Your task to perform on an android device: Show me popular games on the Play Store Image 0: 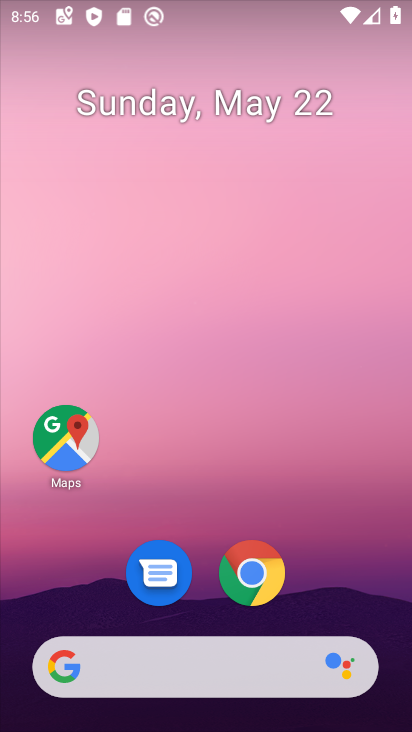
Step 0: drag from (216, 568) to (231, 24)
Your task to perform on an android device: Show me popular games on the Play Store Image 1: 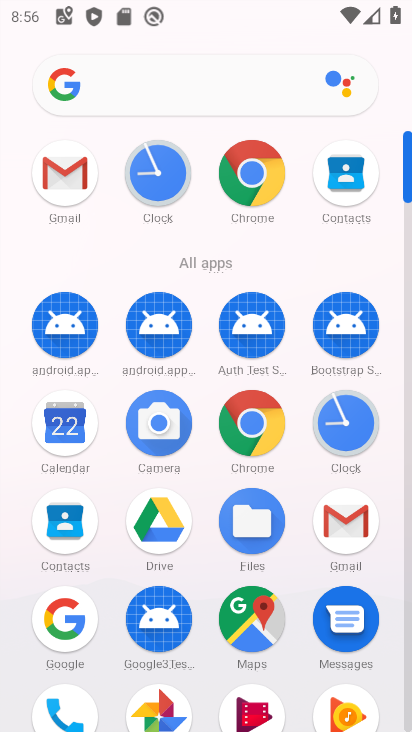
Step 1: drag from (305, 587) to (313, 167)
Your task to perform on an android device: Show me popular games on the Play Store Image 2: 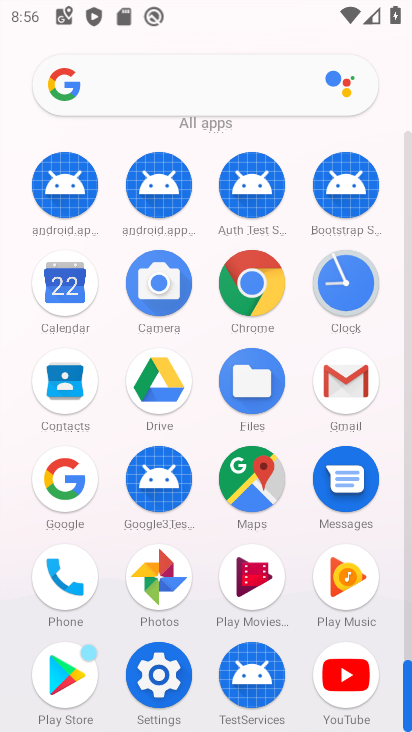
Step 2: click (53, 679)
Your task to perform on an android device: Show me popular games on the Play Store Image 3: 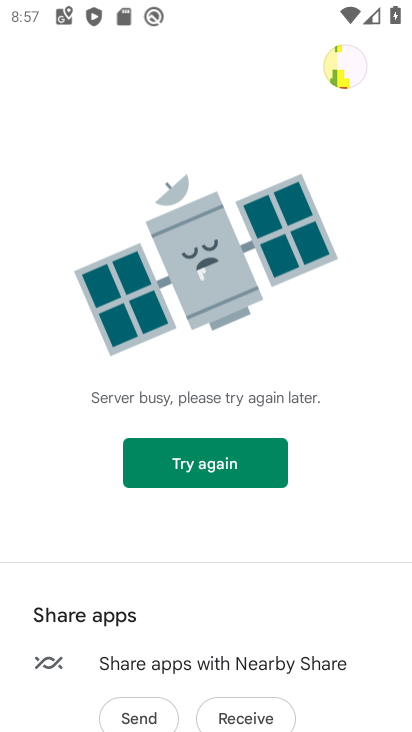
Step 3: task complete